Your task to perform on an android device: turn on priority inbox in the gmail app Image 0: 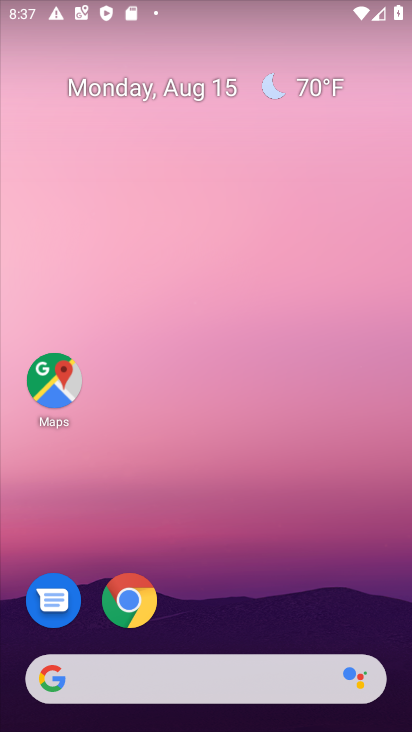
Step 0: drag from (234, 629) to (220, 25)
Your task to perform on an android device: turn on priority inbox in the gmail app Image 1: 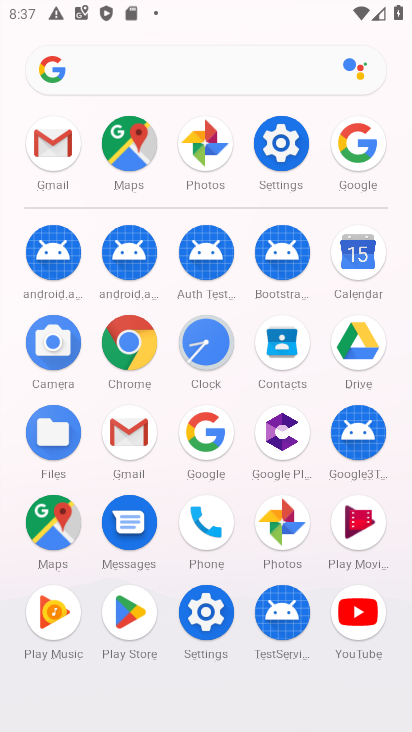
Step 1: click (131, 434)
Your task to perform on an android device: turn on priority inbox in the gmail app Image 2: 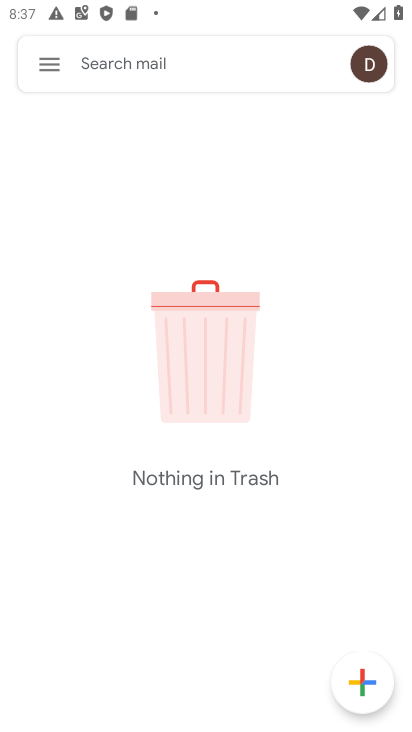
Step 2: click (51, 63)
Your task to perform on an android device: turn on priority inbox in the gmail app Image 3: 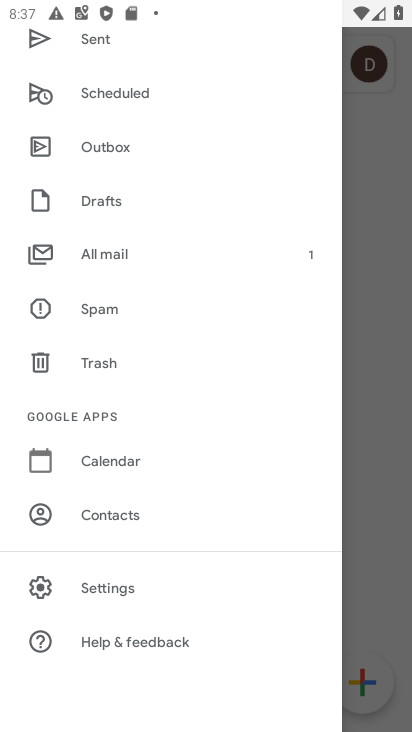
Step 3: click (81, 584)
Your task to perform on an android device: turn on priority inbox in the gmail app Image 4: 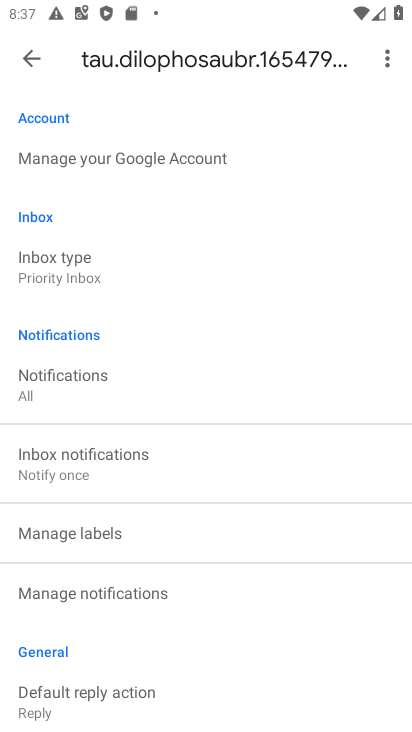
Step 4: task complete